Your task to perform on an android device: delete the emails in spam in the gmail app Image 0: 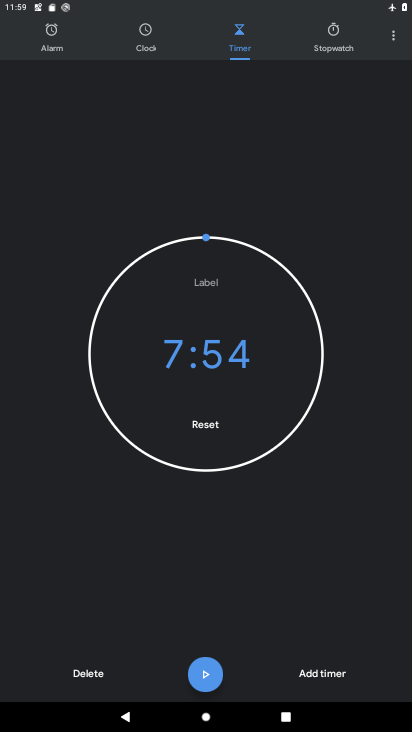
Step 0: press home button
Your task to perform on an android device: delete the emails in spam in the gmail app Image 1: 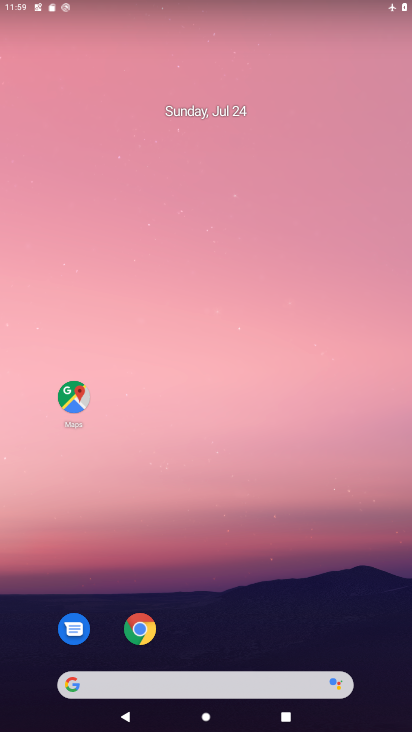
Step 1: drag from (241, 650) to (210, 1)
Your task to perform on an android device: delete the emails in spam in the gmail app Image 2: 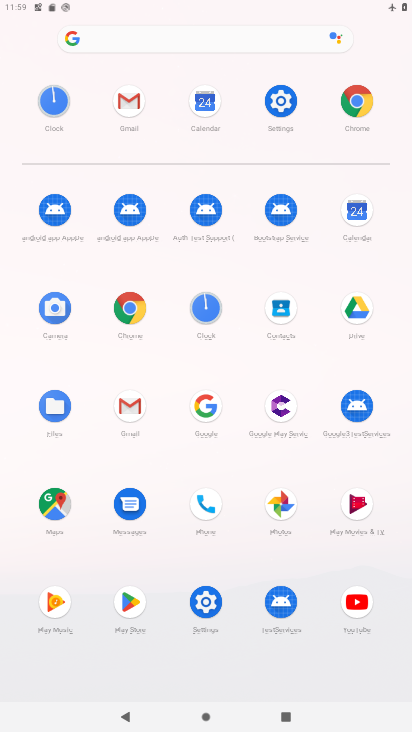
Step 2: click (137, 416)
Your task to perform on an android device: delete the emails in spam in the gmail app Image 3: 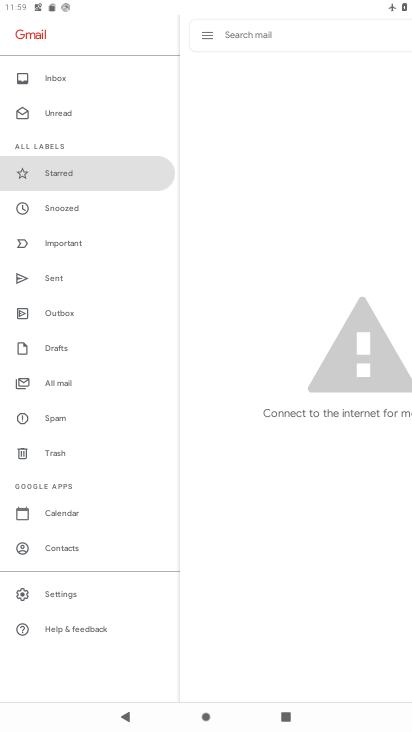
Step 3: click (54, 420)
Your task to perform on an android device: delete the emails in spam in the gmail app Image 4: 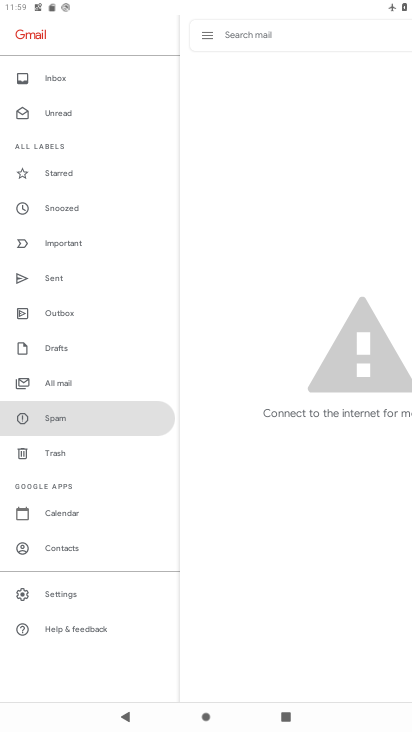
Step 4: task complete